Your task to perform on an android device: check google app version Image 0: 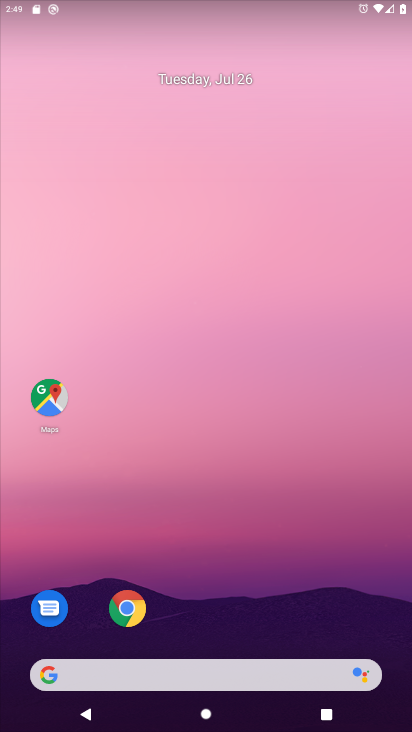
Step 0: drag from (256, 616) to (213, 103)
Your task to perform on an android device: check google app version Image 1: 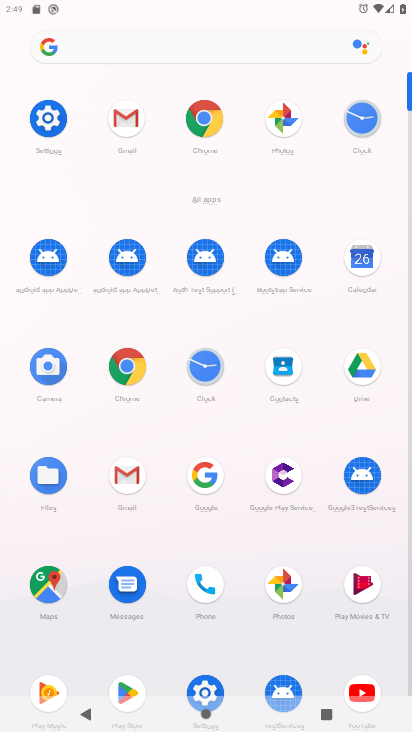
Step 1: click (201, 491)
Your task to perform on an android device: check google app version Image 2: 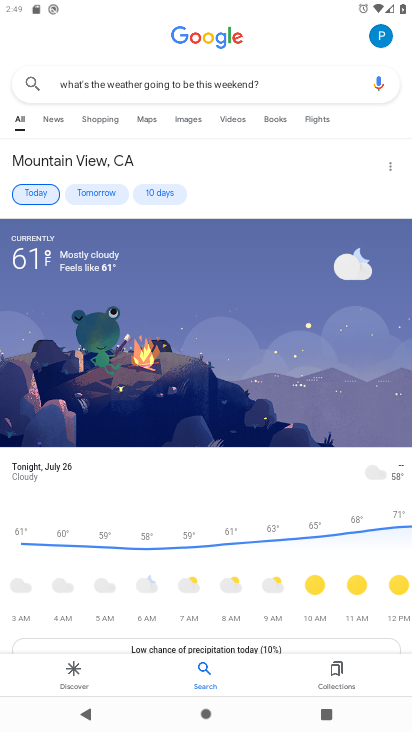
Step 2: click (380, 34)
Your task to perform on an android device: check google app version Image 3: 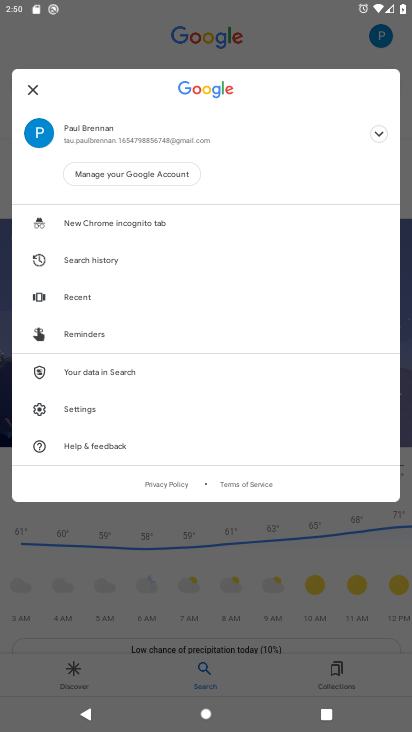
Step 3: click (66, 405)
Your task to perform on an android device: check google app version Image 4: 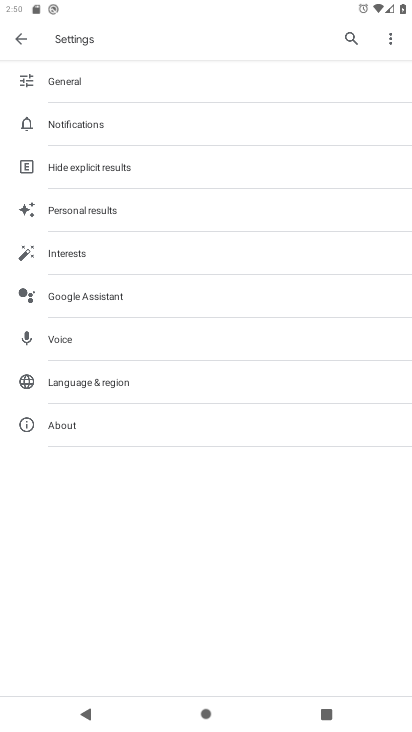
Step 4: click (98, 412)
Your task to perform on an android device: check google app version Image 5: 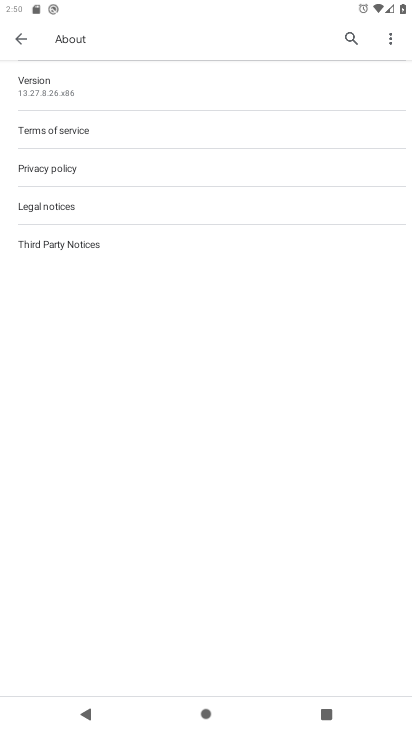
Step 5: click (125, 82)
Your task to perform on an android device: check google app version Image 6: 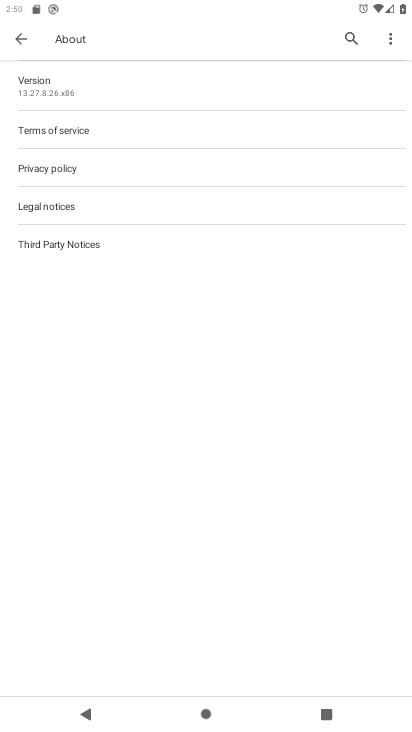
Step 6: task complete